Your task to perform on an android device: What's the time in San Francisco? Image 0: 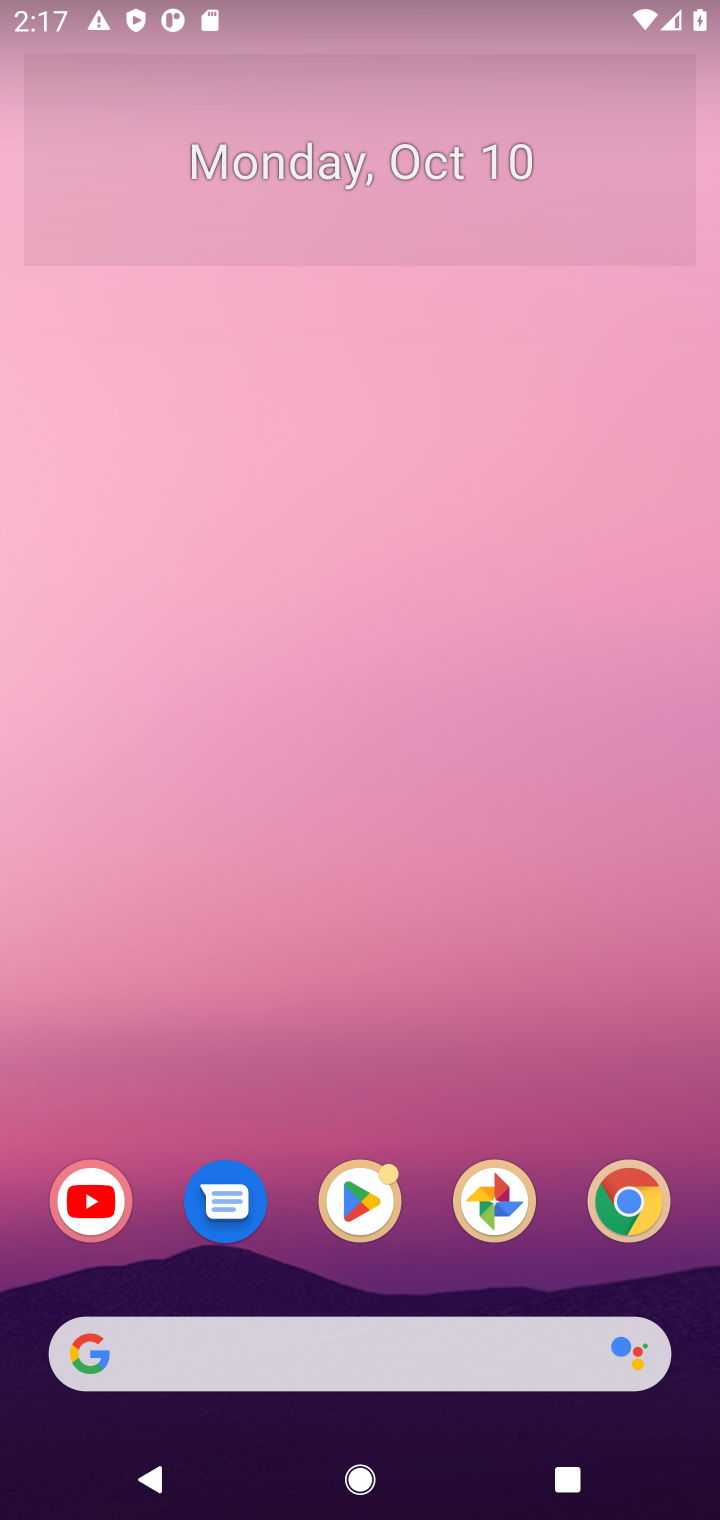
Step 0: click (233, 1351)
Your task to perform on an android device: What's the time in San Francisco? Image 1: 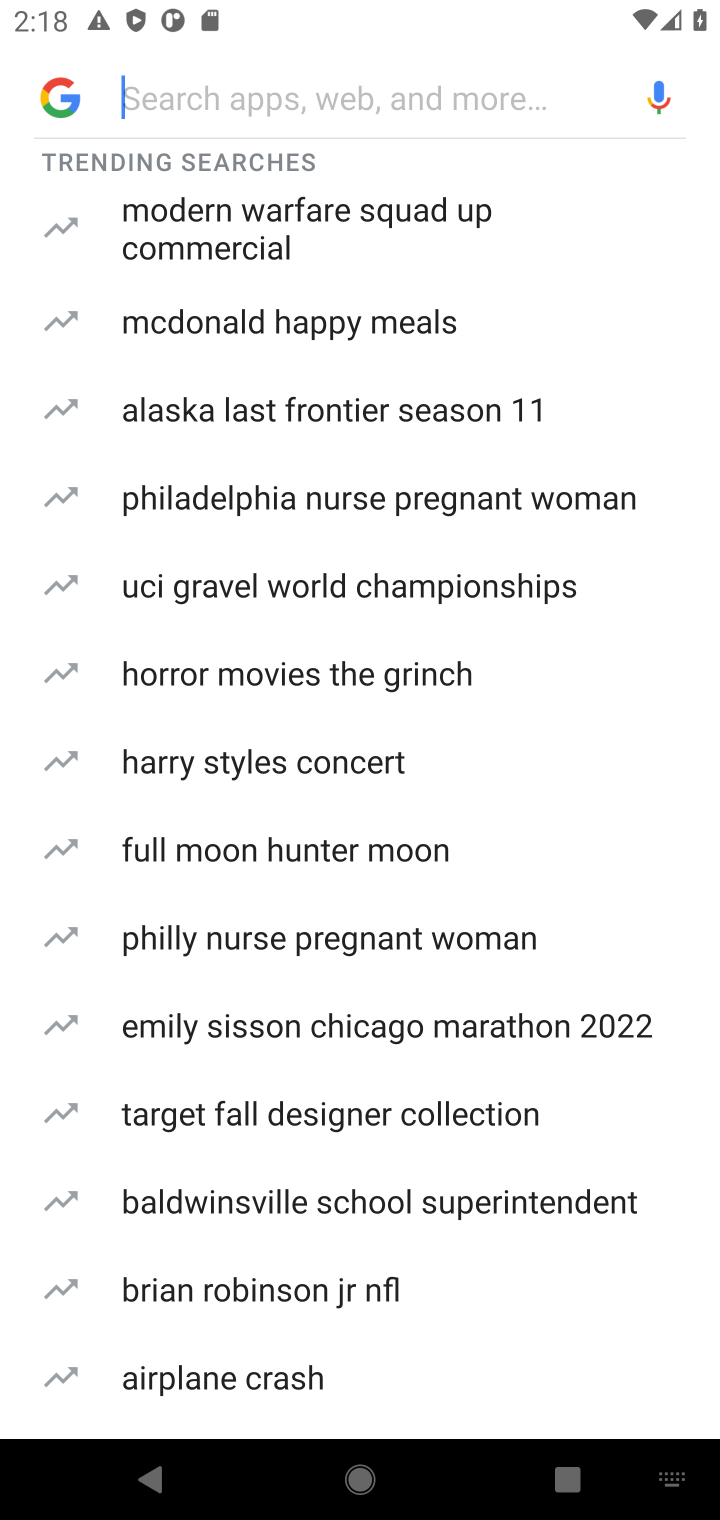
Step 1: type "time in San Francisco"
Your task to perform on an android device: What's the time in San Francisco? Image 2: 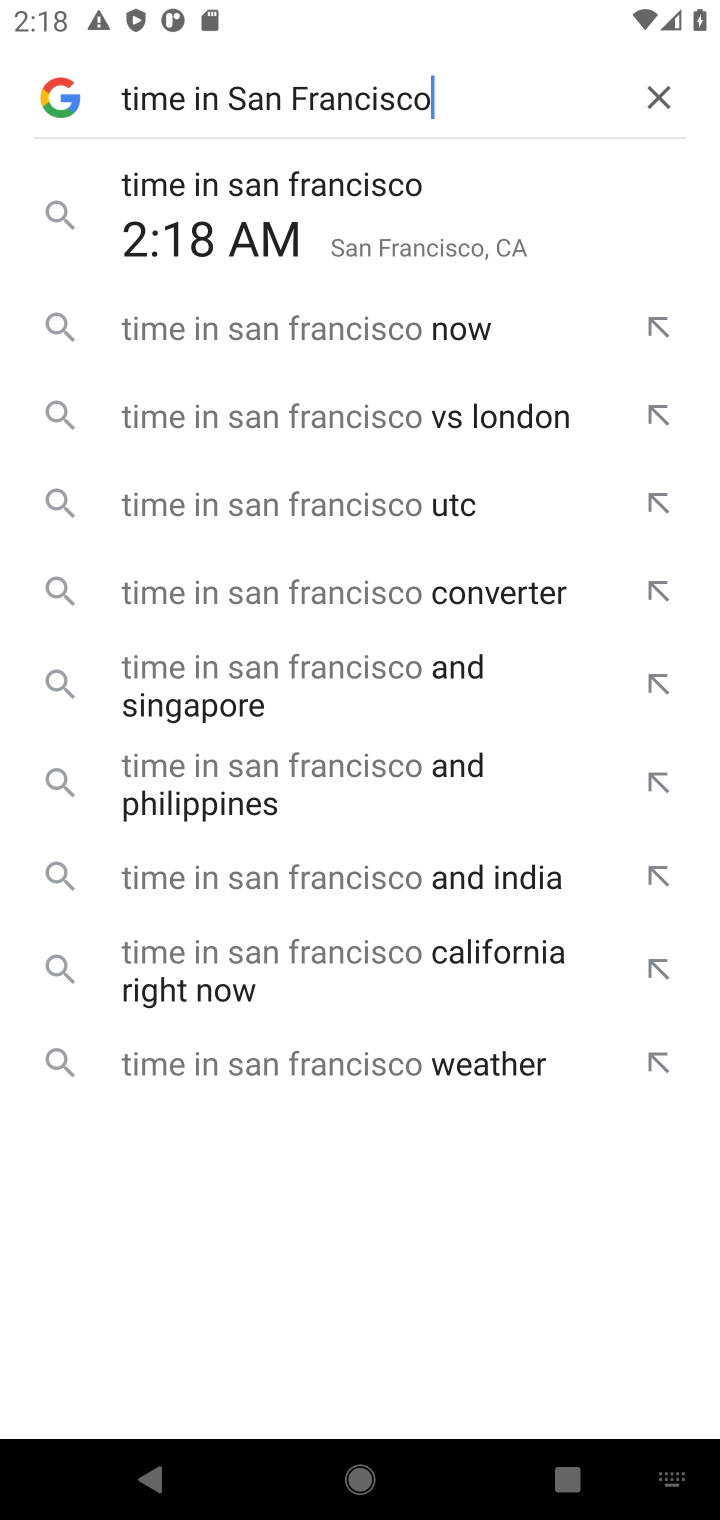
Step 2: click (349, 211)
Your task to perform on an android device: What's the time in San Francisco? Image 3: 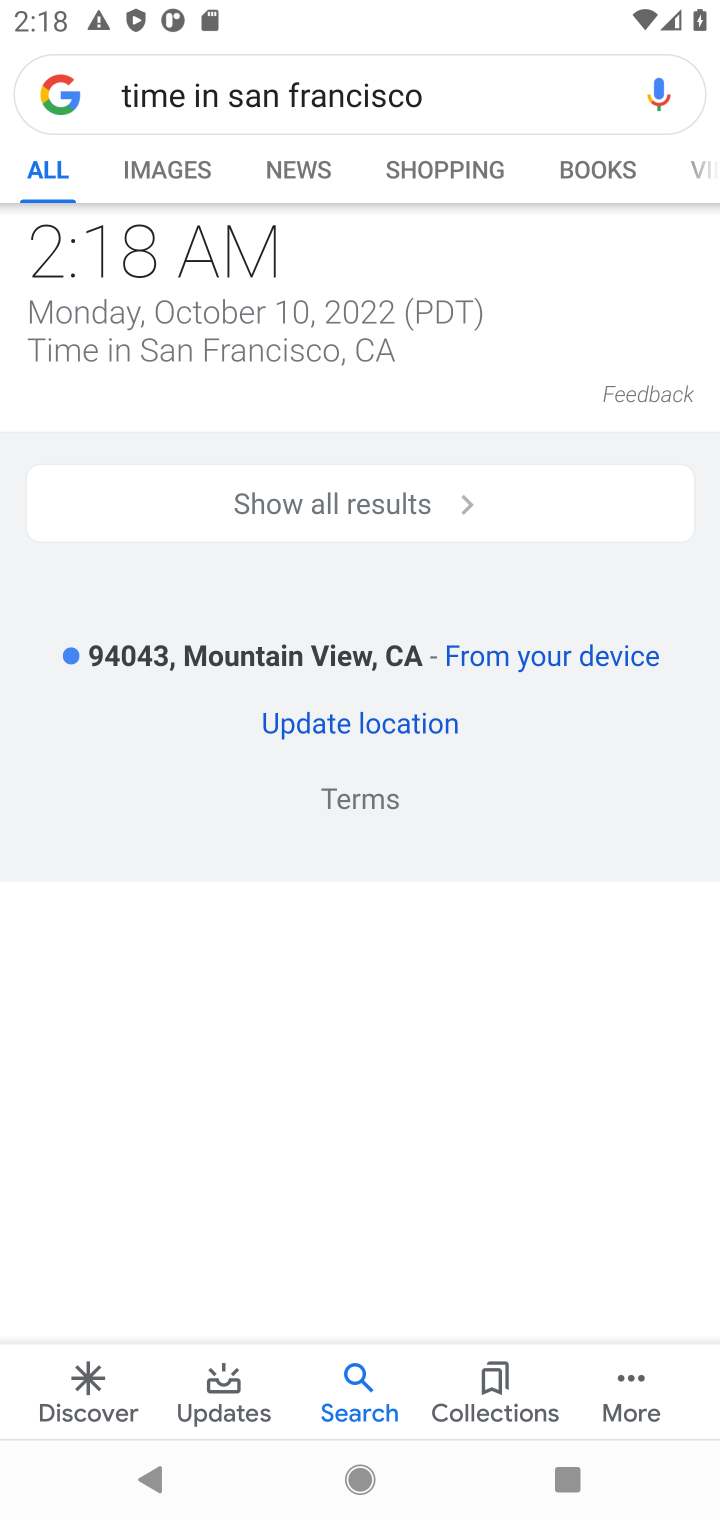
Step 3: drag from (369, 400) to (371, 478)
Your task to perform on an android device: What's the time in San Francisco? Image 4: 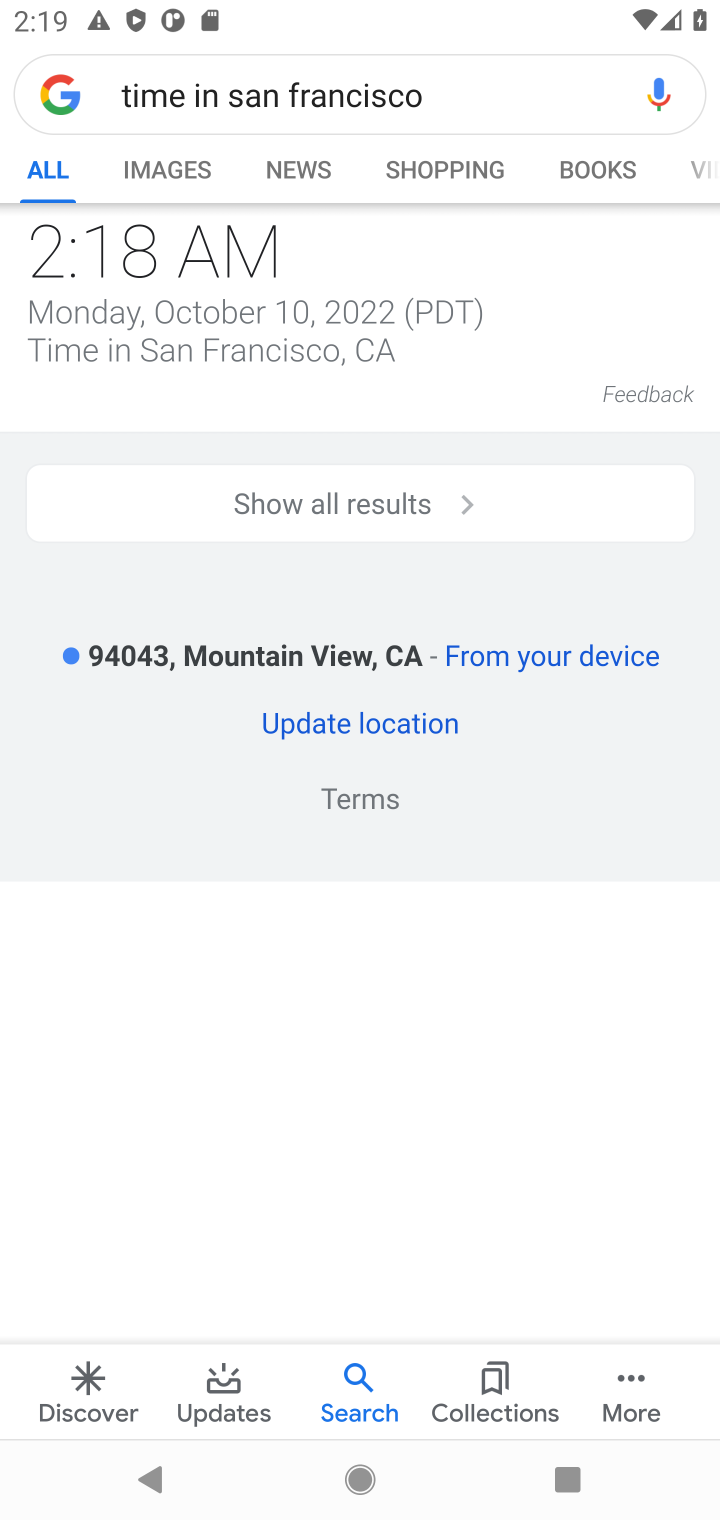
Step 4: drag from (312, 1093) to (312, 814)
Your task to perform on an android device: What's the time in San Francisco? Image 5: 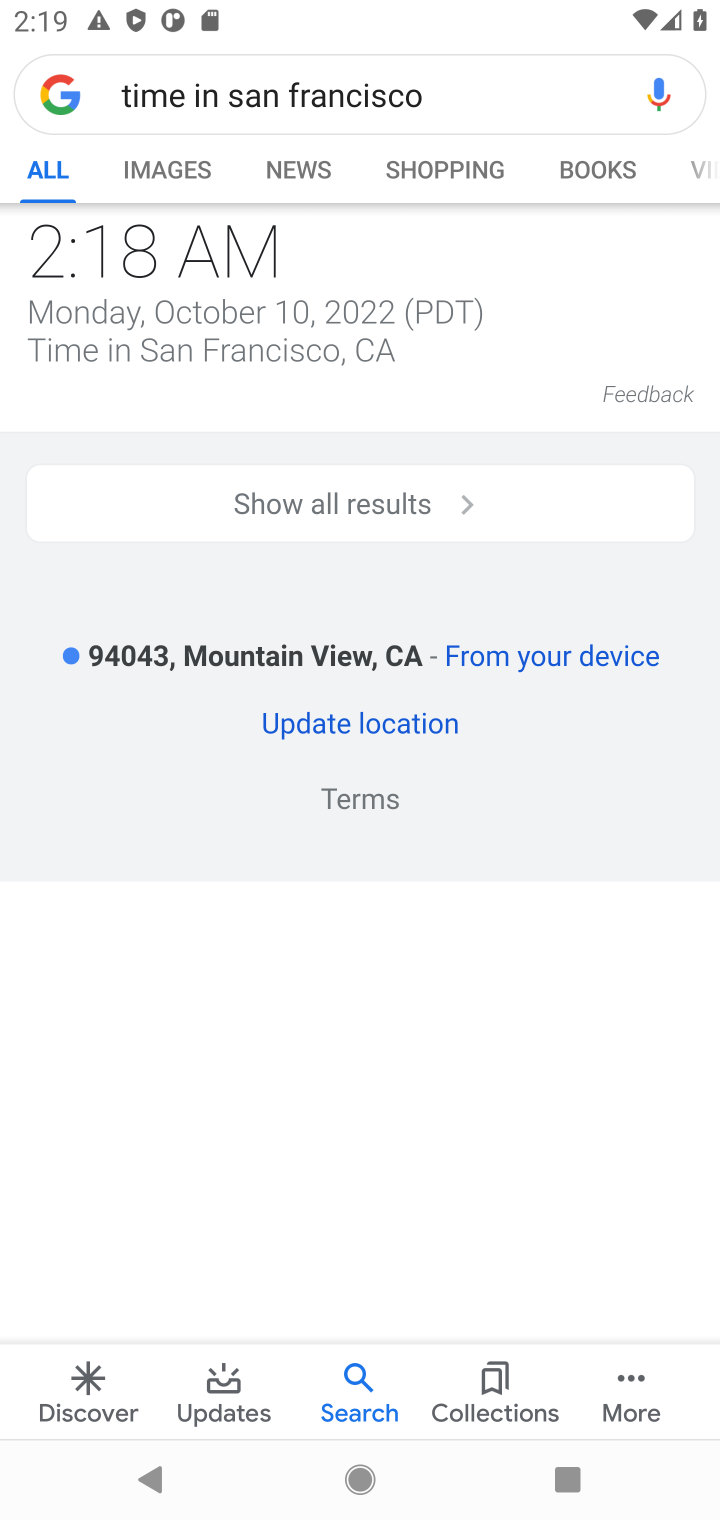
Step 5: drag from (404, 1192) to (371, 501)
Your task to perform on an android device: What's the time in San Francisco? Image 6: 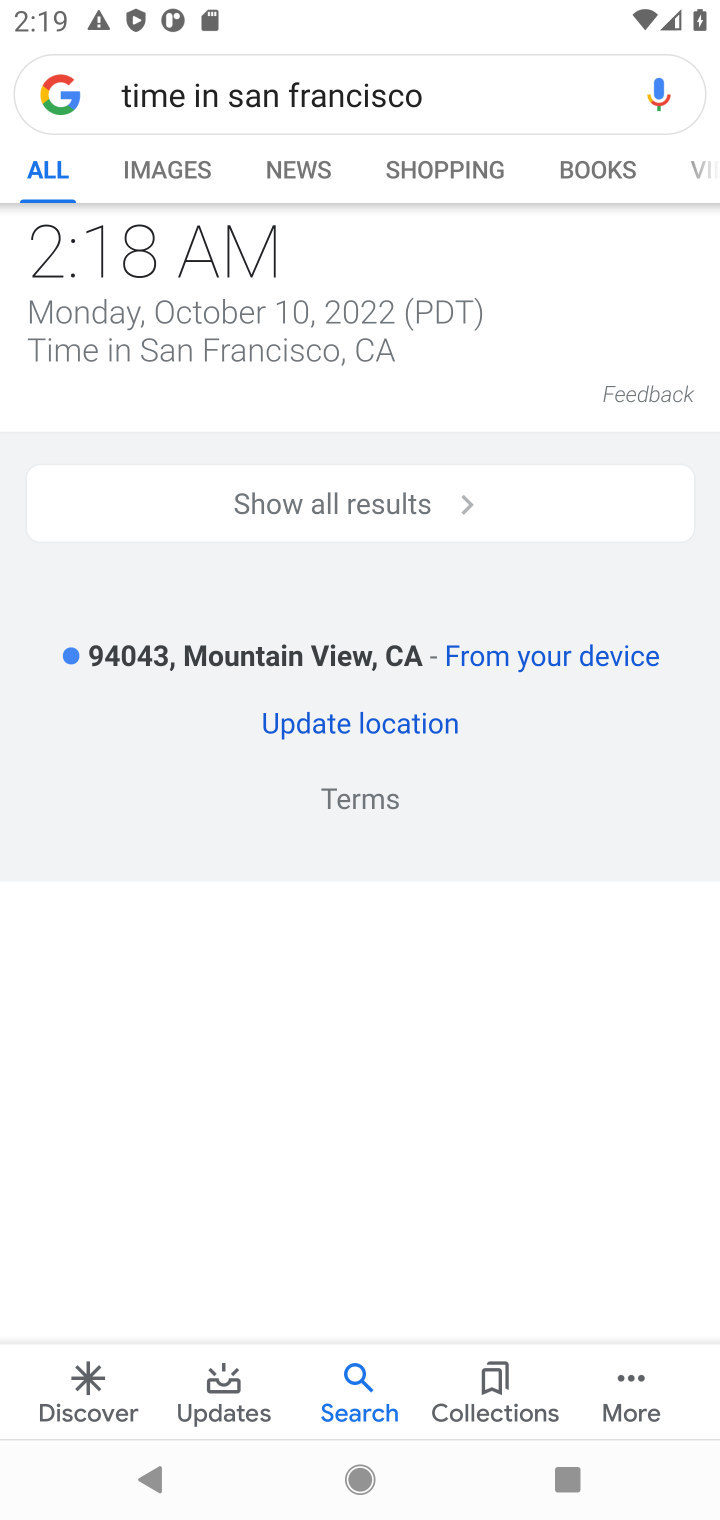
Step 6: click (371, 499)
Your task to perform on an android device: What's the time in San Francisco? Image 7: 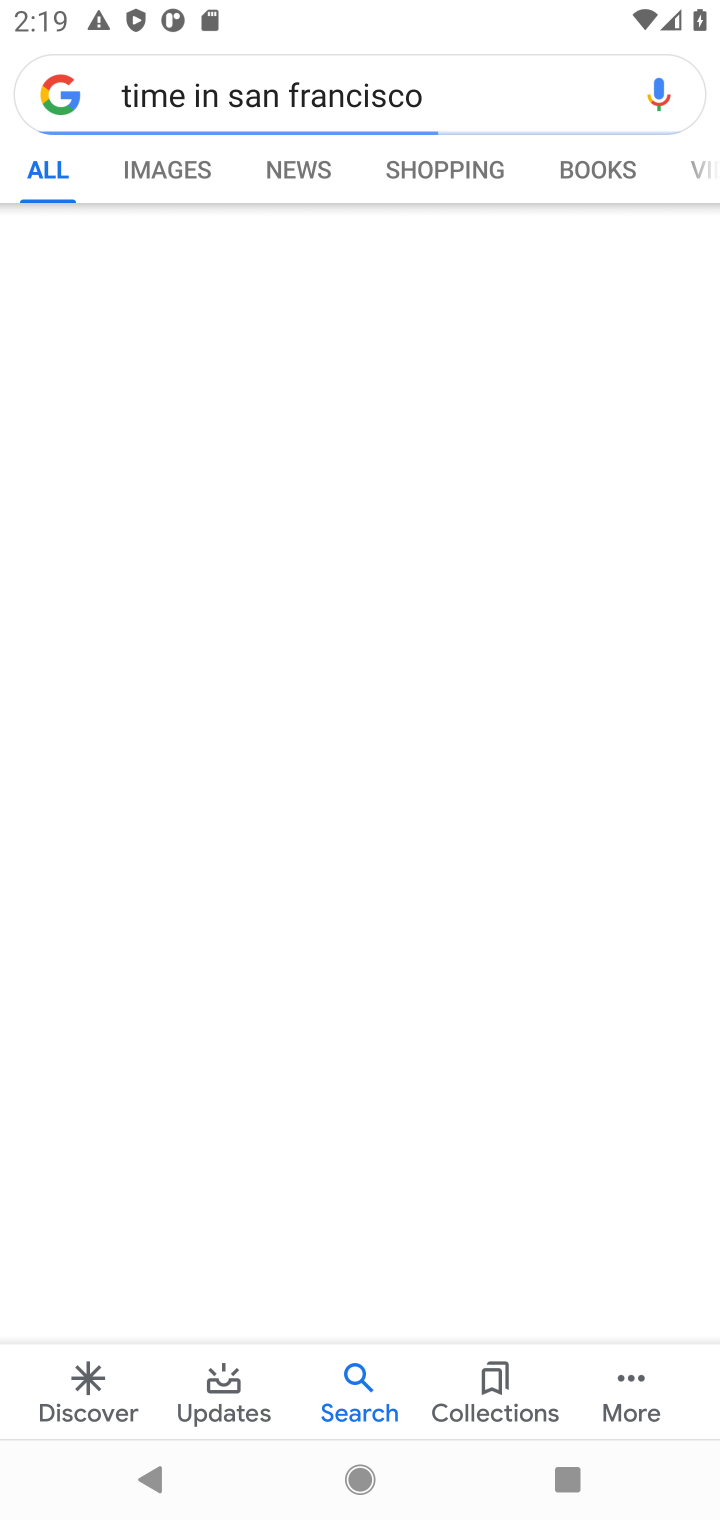
Step 7: click (412, 496)
Your task to perform on an android device: What's the time in San Francisco? Image 8: 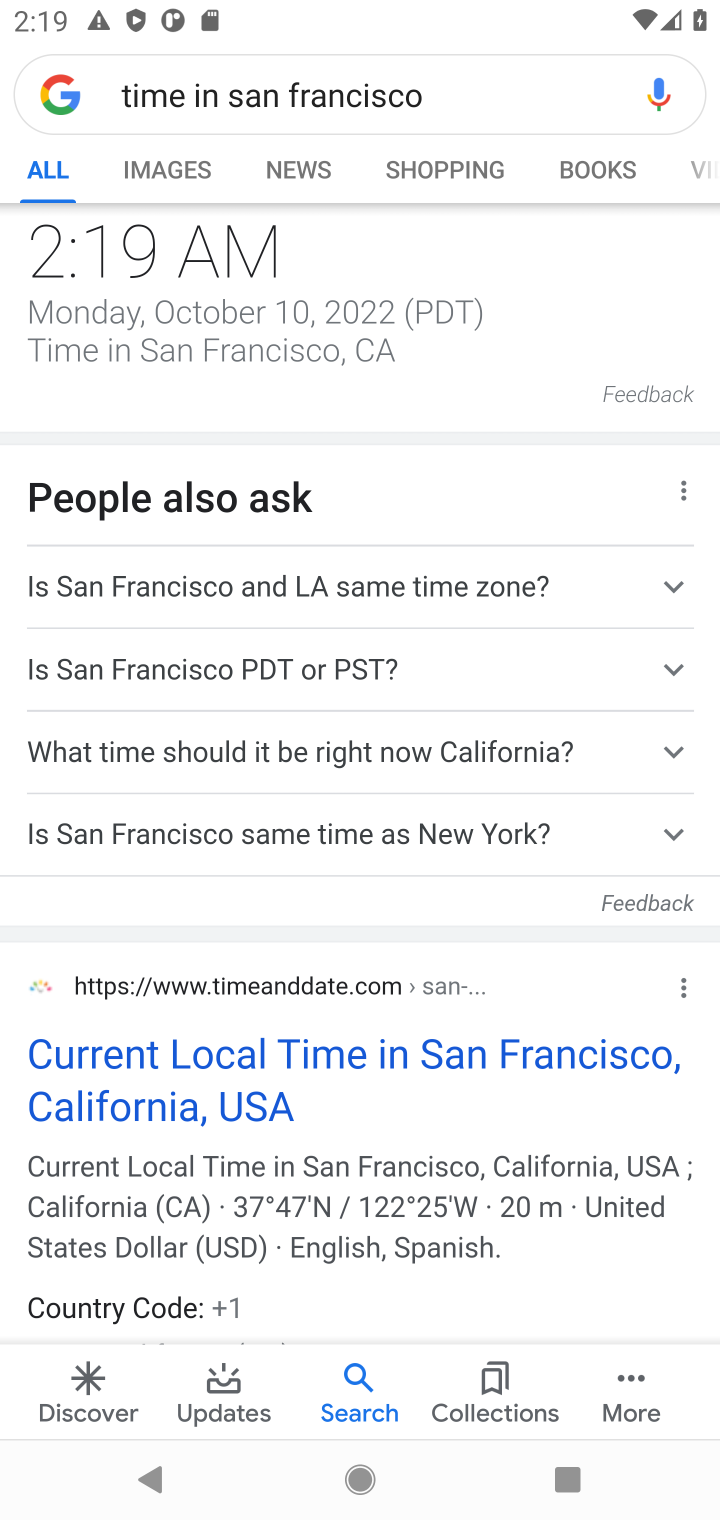
Step 8: task complete